Your task to perform on an android device: Open my contact list Image 0: 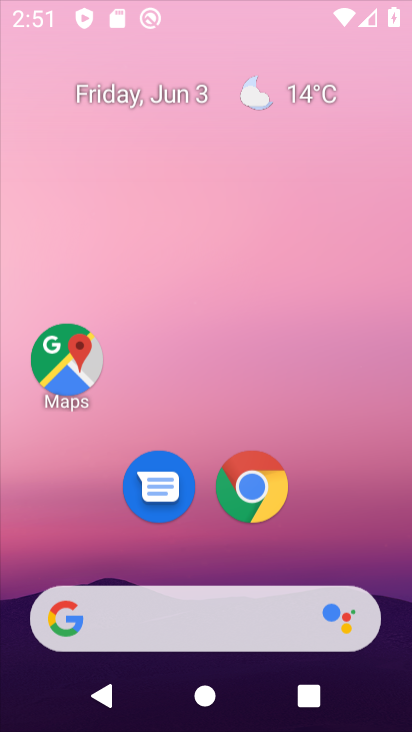
Step 0: click (175, 131)
Your task to perform on an android device: Open my contact list Image 1: 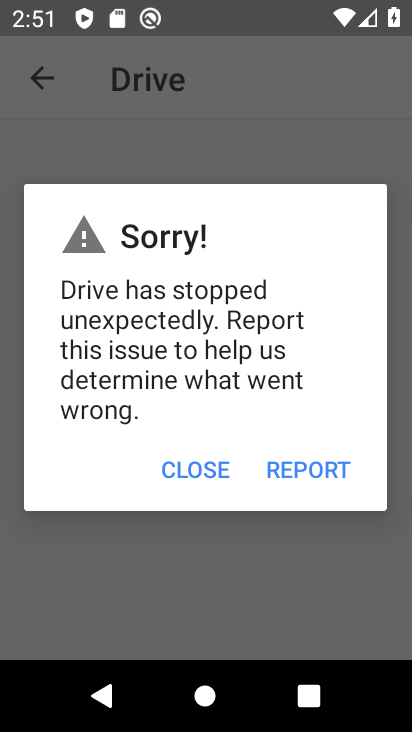
Step 1: press back button
Your task to perform on an android device: Open my contact list Image 2: 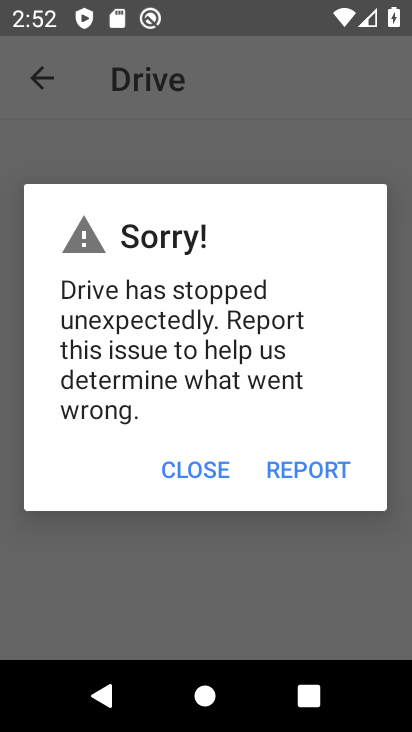
Step 2: press back button
Your task to perform on an android device: Open my contact list Image 3: 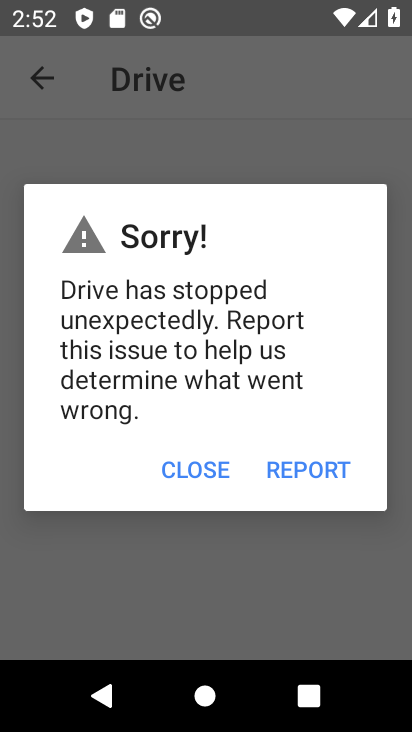
Step 3: press home button
Your task to perform on an android device: Open my contact list Image 4: 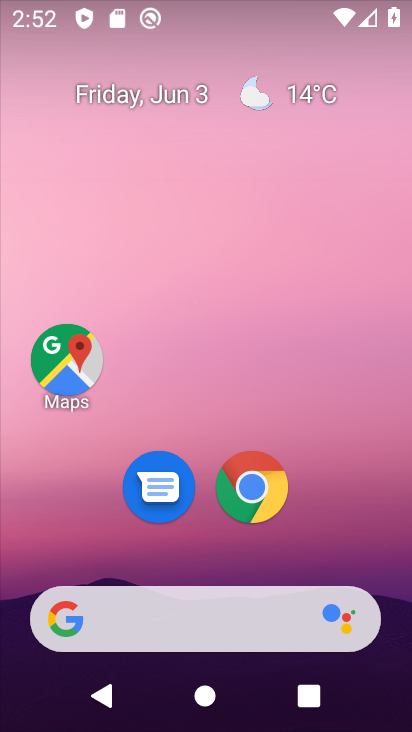
Step 4: drag from (212, 365) to (226, 19)
Your task to perform on an android device: Open my contact list Image 5: 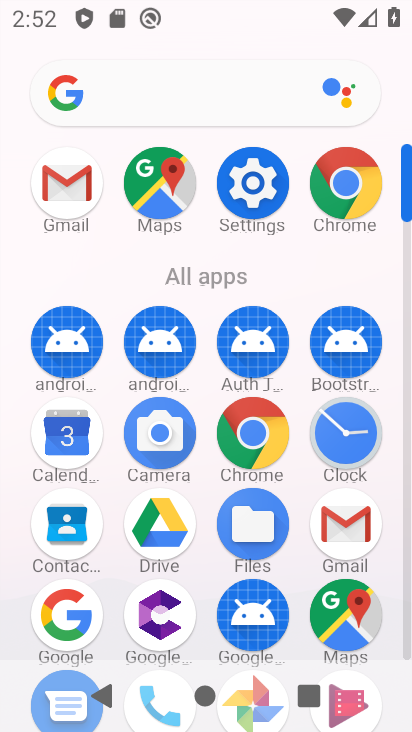
Step 5: click (58, 524)
Your task to perform on an android device: Open my contact list Image 6: 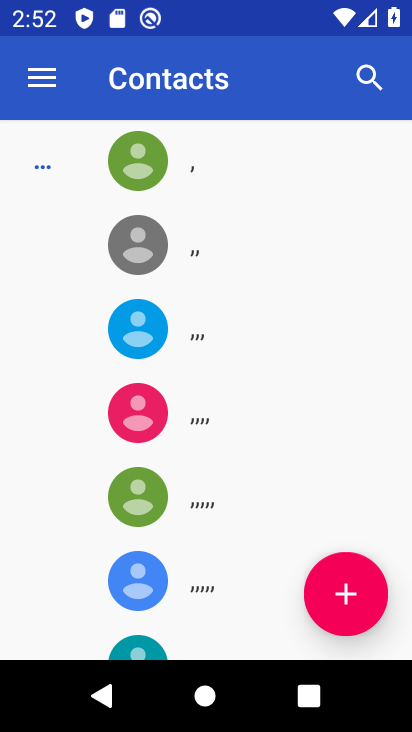
Step 6: click (323, 603)
Your task to perform on an android device: Open my contact list Image 7: 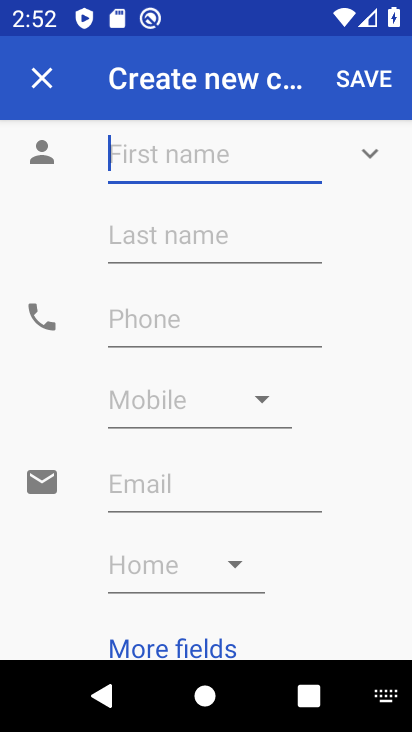
Step 7: click (136, 152)
Your task to perform on an android device: Open my contact list Image 8: 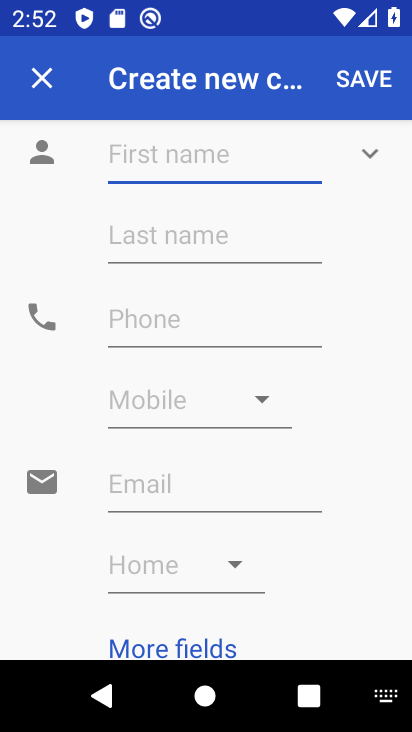
Step 8: type "hhb"
Your task to perform on an android device: Open my contact list Image 9: 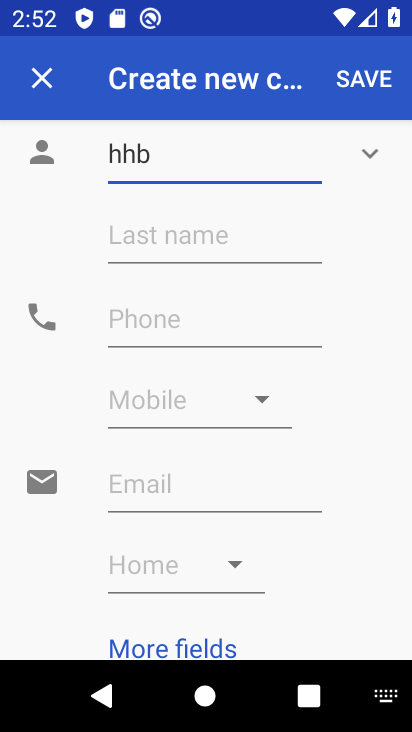
Step 9: click (141, 330)
Your task to perform on an android device: Open my contact list Image 10: 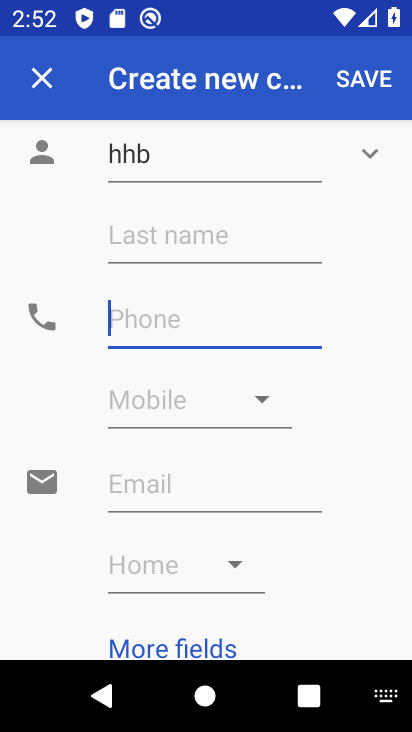
Step 10: type "87878"
Your task to perform on an android device: Open my contact list Image 11: 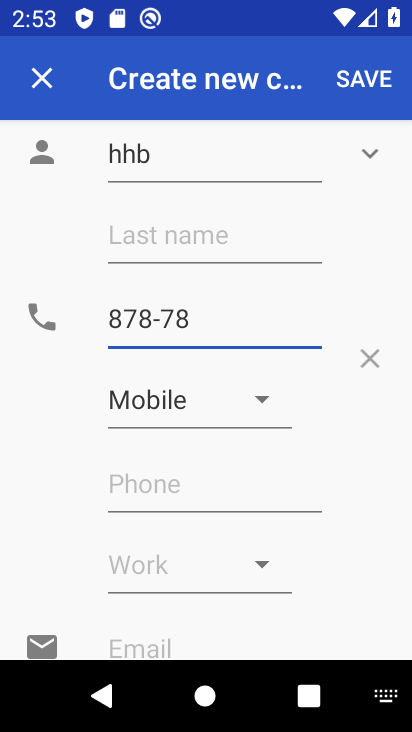
Step 11: click (41, 78)
Your task to perform on an android device: Open my contact list Image 12: 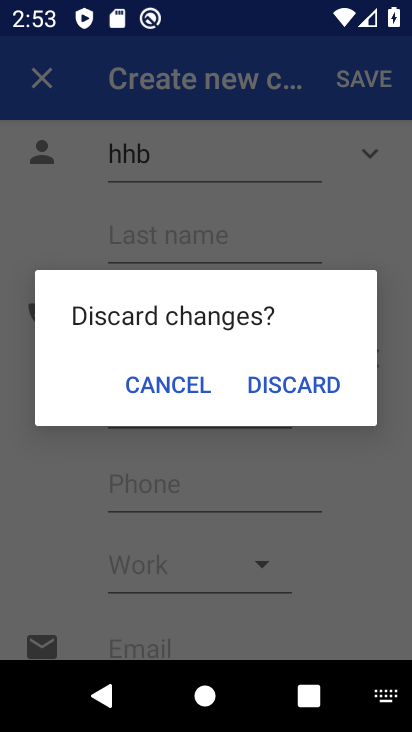
Step 12: click (318, 384)
Your task to perform on an android device: Open my contact list Image 13: 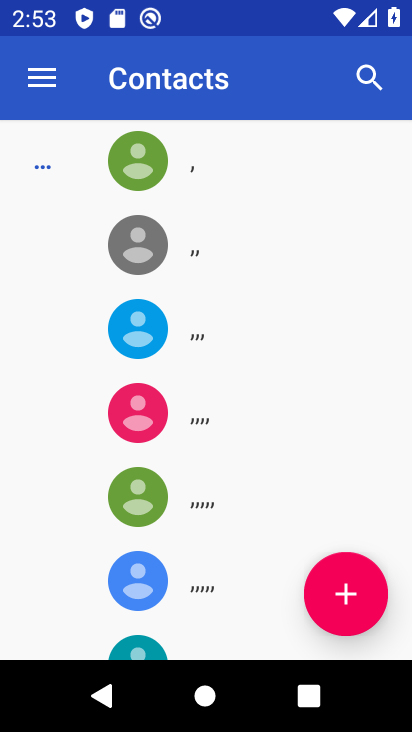
Step 13: drag from (193, 572) to (236, 173)
Your task to perform on an android device: Open my contact list Image 14: 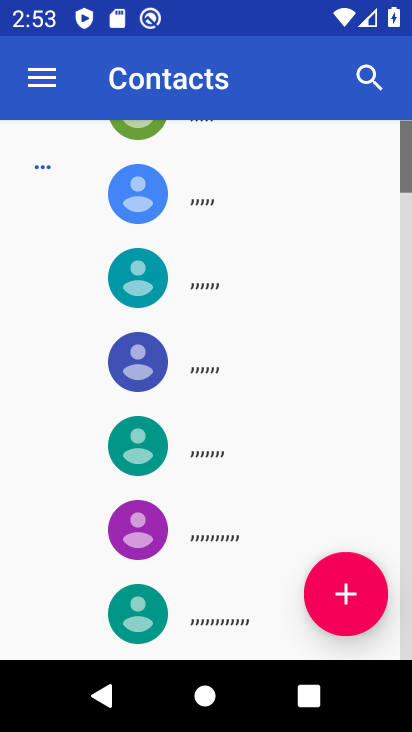
Step 14: click (270, 105)
Your task to perform on an android device: Open my contact list Image 15: 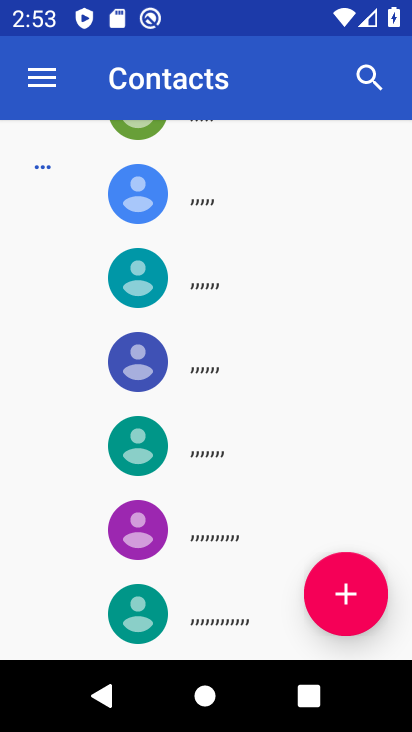
Step 15: task complete